Your task to perform on an android device: uninstall "DoorDash - Food Delivery" Image 0: 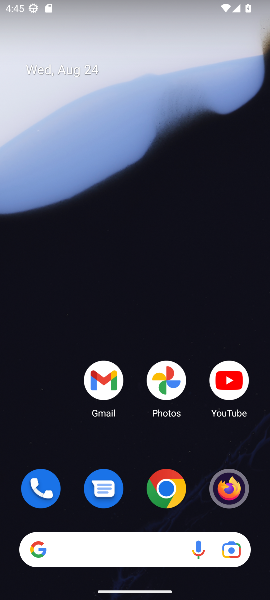
Step 0: drag from (139, 516) to (159, 42)
Your task to perform on an android device: uninstall "DoorDash - Food Delivery" Image 1: 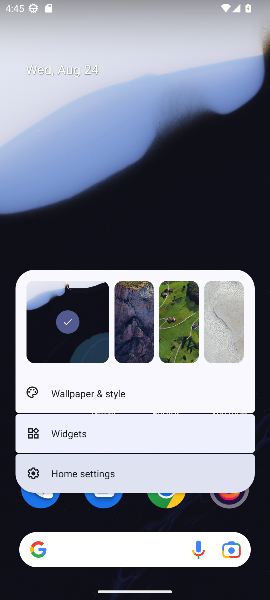
Step 1: click (137, 210)
Your task to perform on an android device: uninstall "DoorDash - Food Delivery" Image 2: 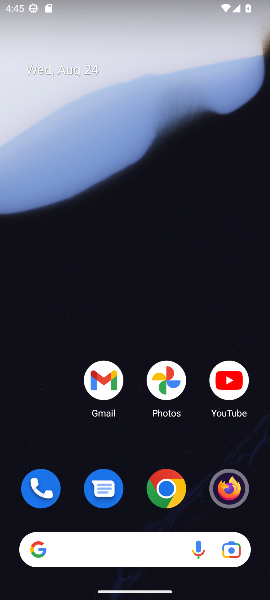
Step 2: drag from (135, 520) to (124, 184)
Your task to perform on an android device: uninstall "DoorDash - Food Delivery" Image 3: 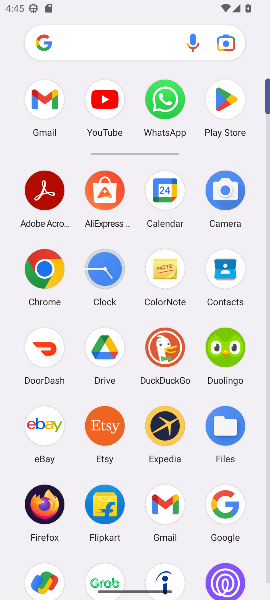
Step 3: click (215, 125)
Your task to perform on an android device: uninstall "DoorDash - Food Delivery" Image 4: 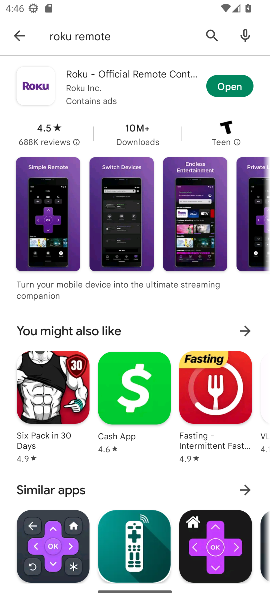
Step 4: click (223, 34)
Your task to perform on an android device: uninstall "DoorDash - Food Delivery" Image 5: 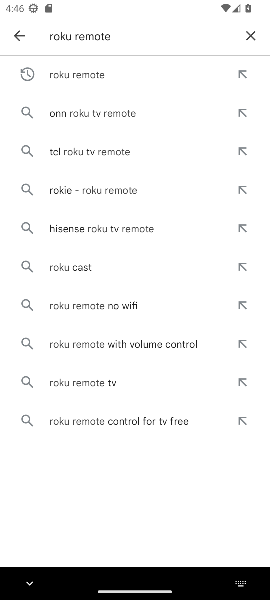
Step 5: click (254, 35)
Your task to perform on an android device: uninstall "DoorDash - Food Delivery" Image 6: 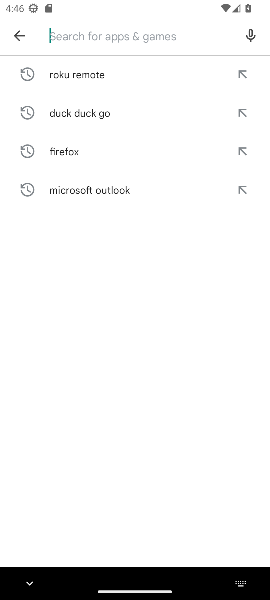
Step 6: type "doordash"
Your task to perform on an android device: uninstall "DoorDash - Food Delivery" Image 7: 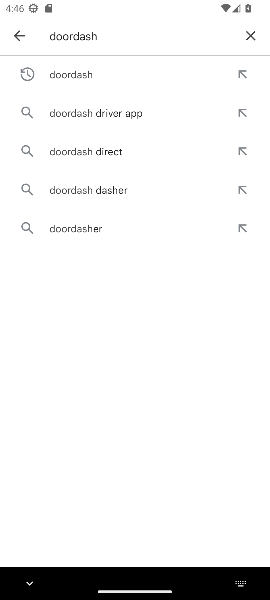
Step 7: click (113, 70)
Your task to perform on an android device: uninstall "DoorDash - Food Delivery" Image 8: 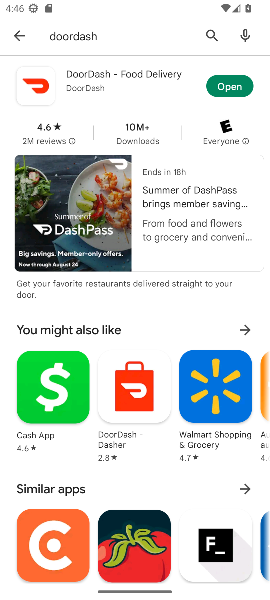
Step 8: click (230, 81)
Your task to perform on an android device: uninstall "DoorDash - Food Delivery" Image 9: 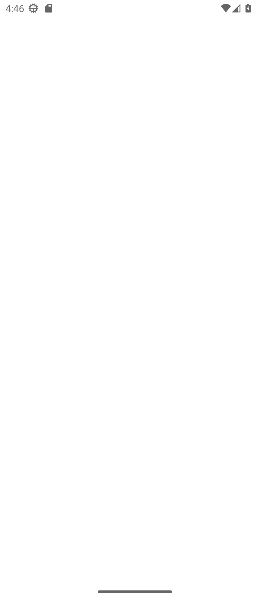
Step 9: task complete